Your task to perform on an android device: Search for vegetarian restaurants on Maps Image 0: 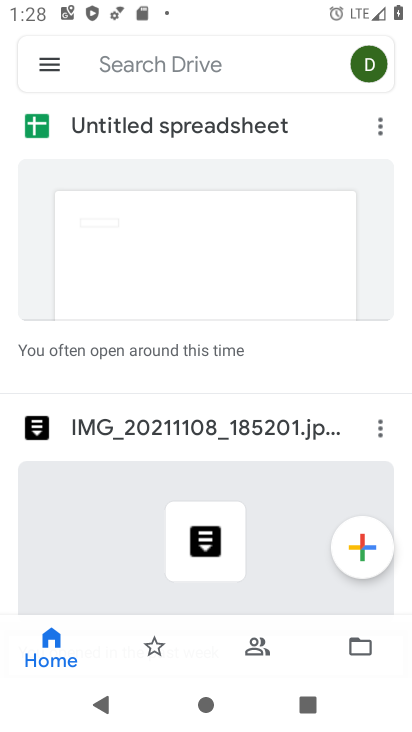
Step 0: press home button
Your task to perform on an android device: Search for vegetarian restaurants on Maps Image 1: 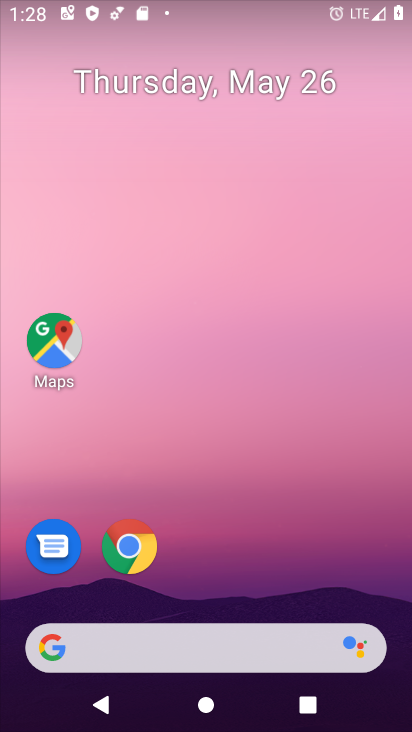
Step 1: drag from (394, 656) to (281, 317)
Your task to perform on an android device: Search for vegetarian restaurants on Maps Image 2: 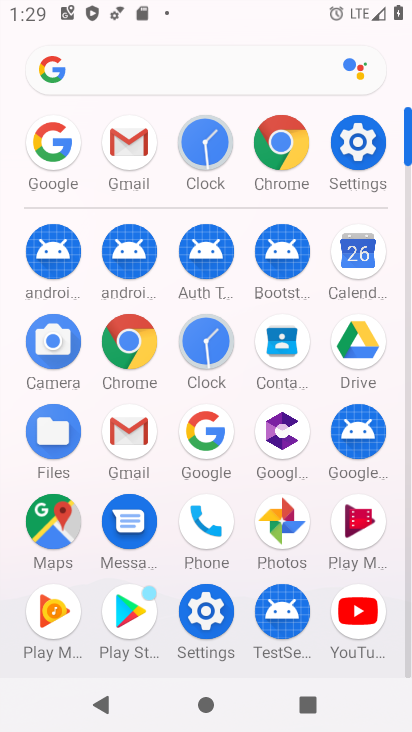
Step 2: click (50, 515)
Your task to perform on an android device: Search for vegetarian restaurants on Maps Image 3: 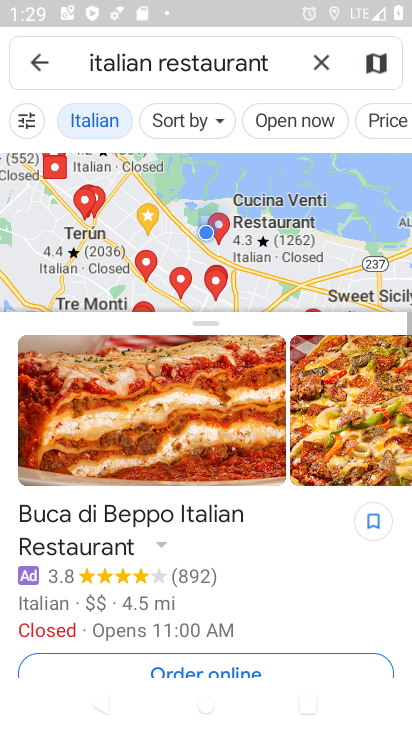
Step 3: click (321, 64)
Your task to perform on an android device: Search for vegetarian restaurants on Maps Image 4: 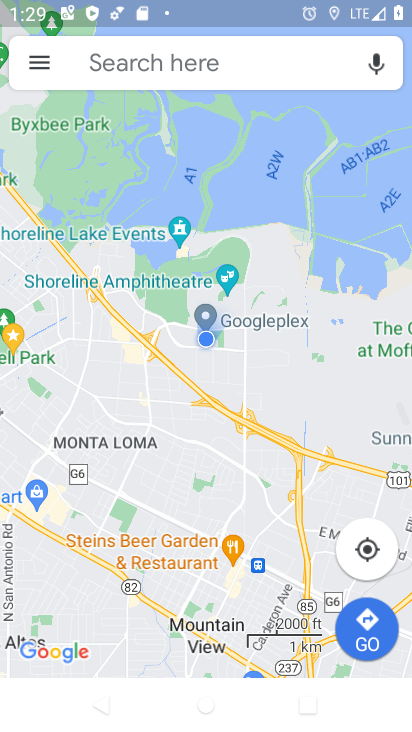
Step 4: click (201, 65)
Your task to perform on an android device: Search for vegetarian restaurants on Maps Image 5: 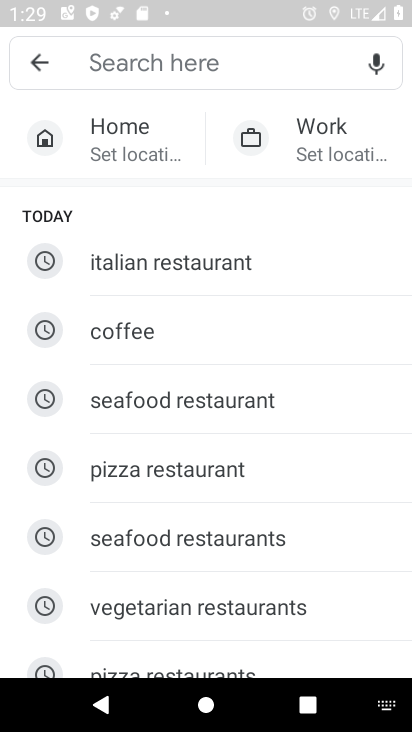
Step 5: click (206, 624)
Your task to perform on an android device: Search for vegetarian restaurants on Maps Image 6: 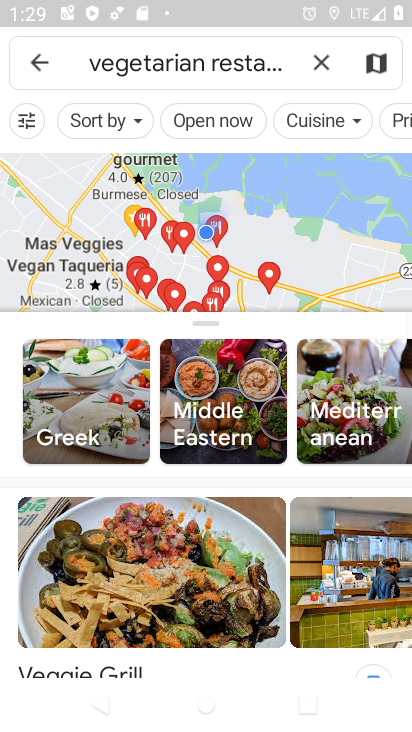
Step 6: task complete